Your task to perform on an android device: How do I get to the nearest Starbucks? Image 0: 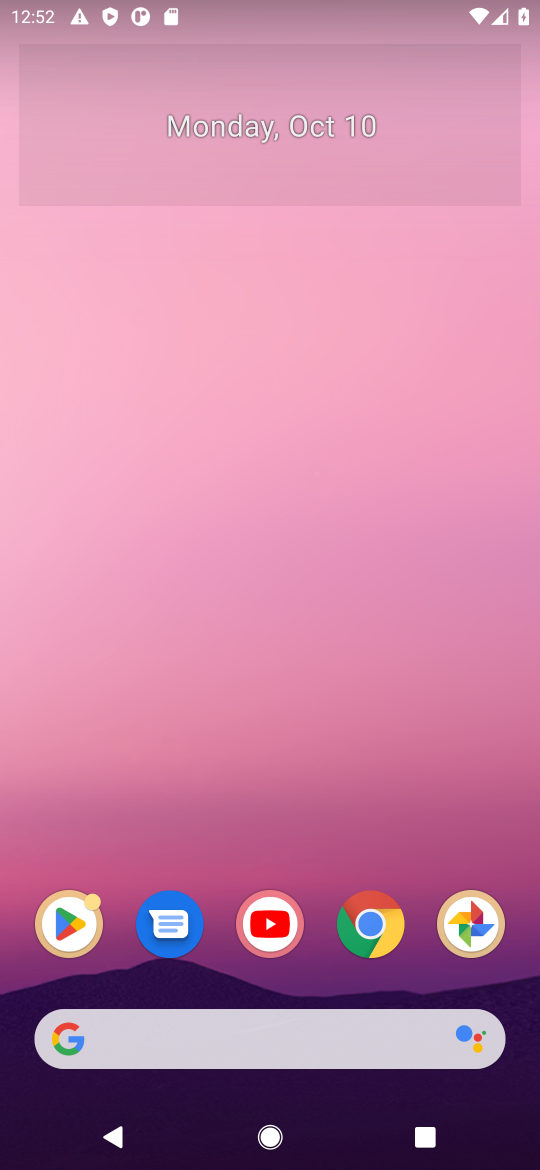
Step 0: drag from (279, 515) to (314, 179)
Your task to perform on an android device: How do I get to the nearest Starbucks? Image 1: 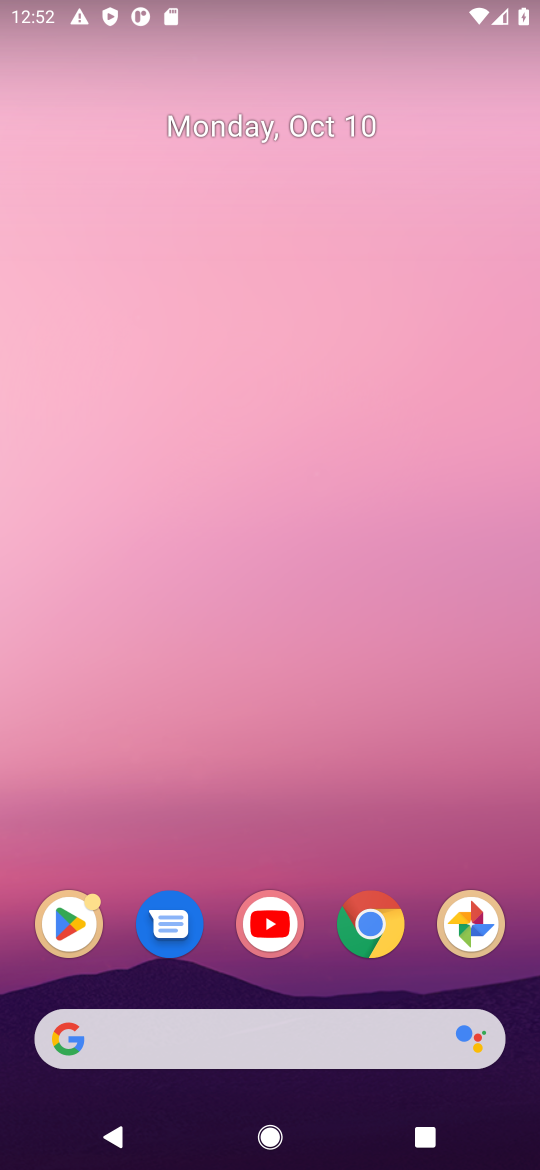
Step 1: drag from (210, 1021) to (133, 9)
Your task to perform on an android device: How do I get to the nearest Starbucks? Image 2: 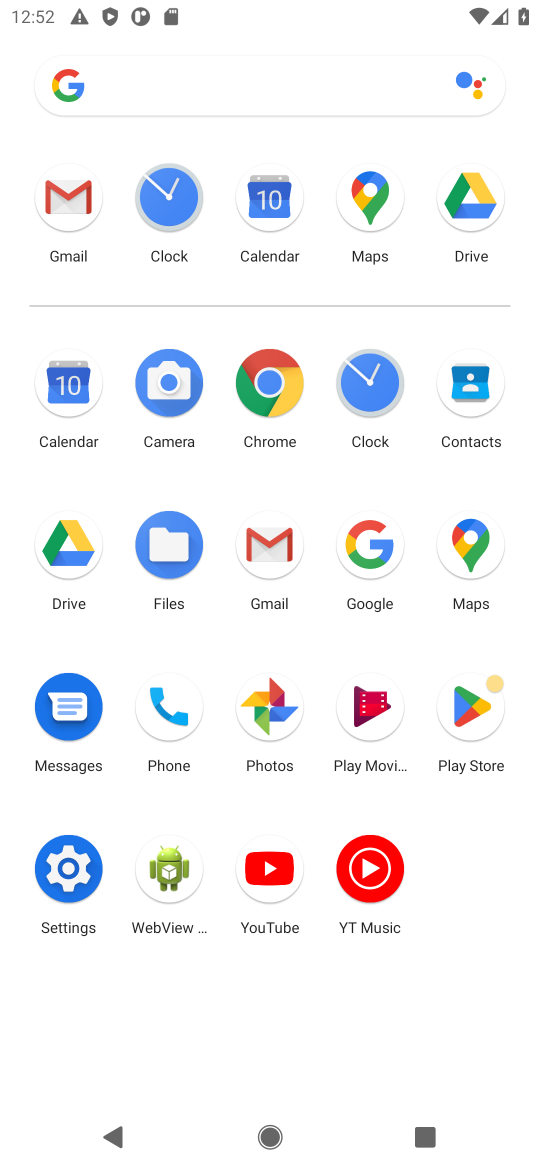
Step 2: click (255, 362)
Your task to perform on an android device: How do I get to the nearest Starbucks? Image 3: 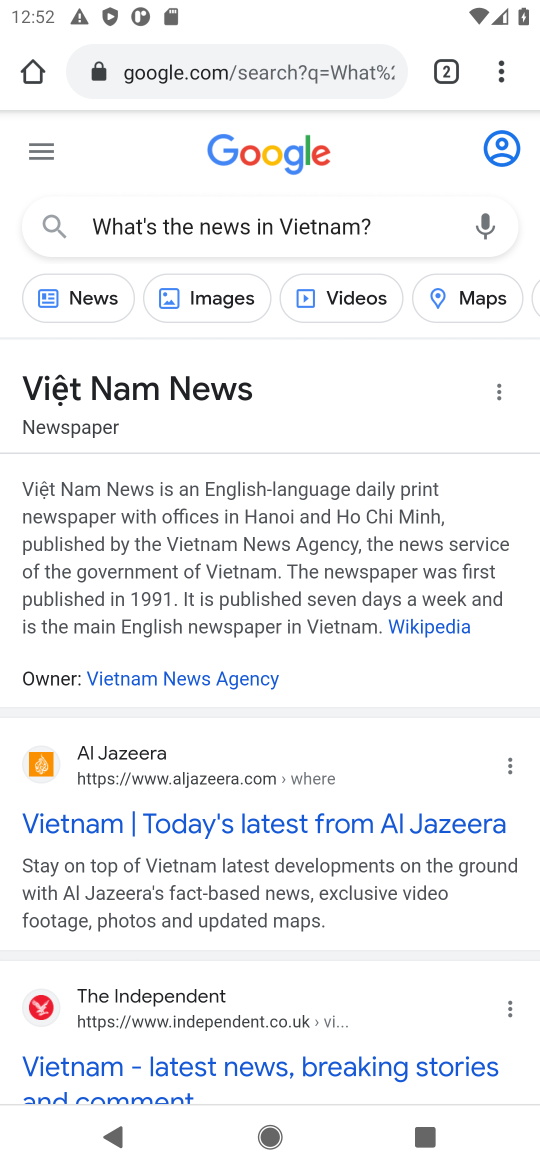
Step 3: click (298, 78)
Your task to perform on an android device: How do I get to the nearest Starbucks? Image 4: 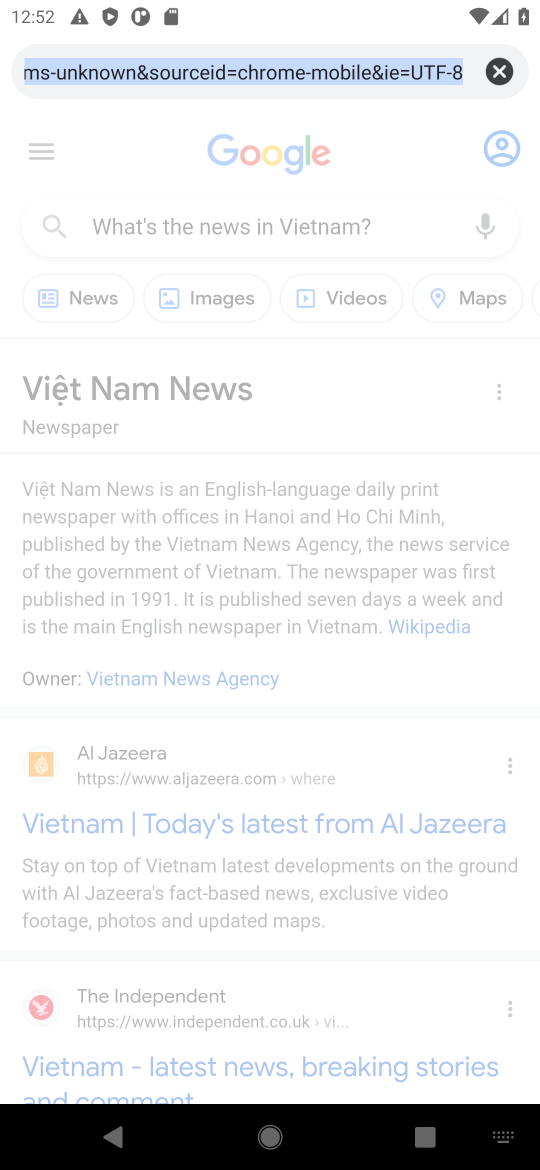
Step 4: click (503, 61)
Your task to perform on an android device: How do I get to the nearest Starbucks? Image 5: 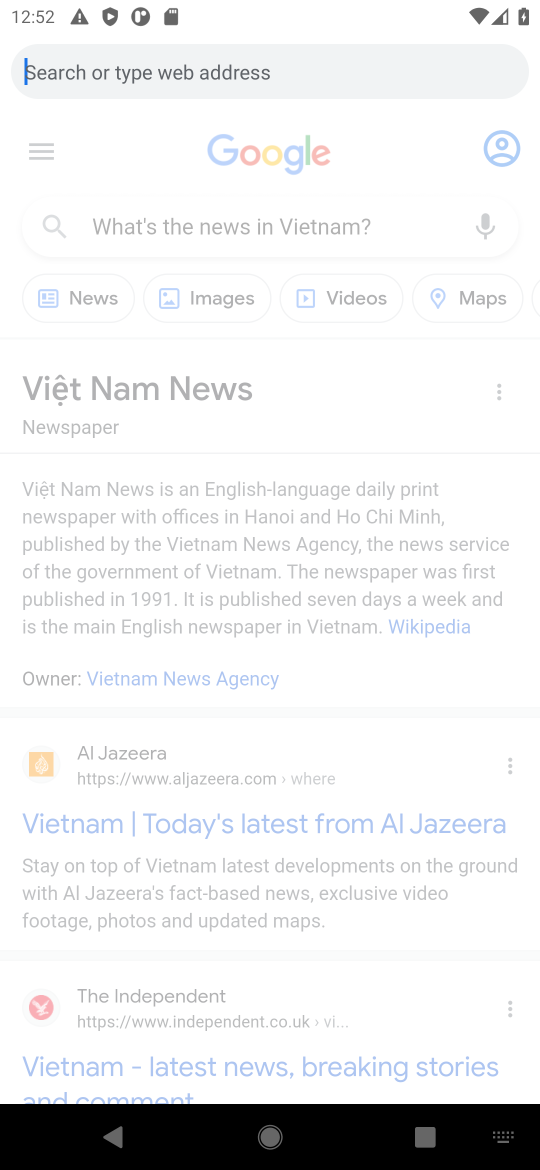
Step 5: type "How do I get to the nearest Starbucks?"
Your task to perform on an android device: How do I get to the nearest Starbucks? Image 6: 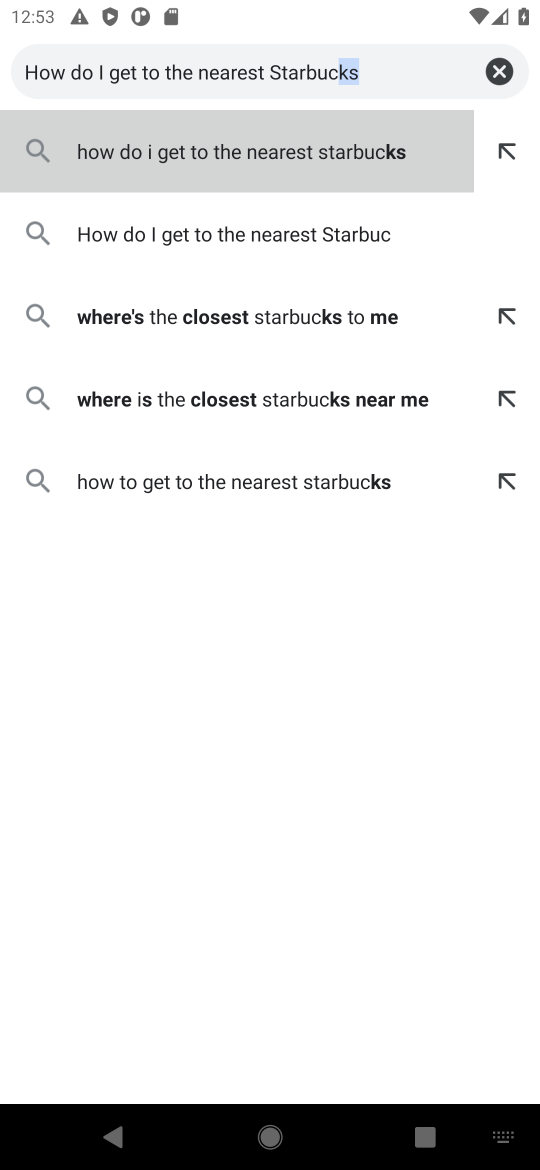
Step 6: press enter
Your task to perform on an android device: How do I get to the nearest Starbucks? Image 7: 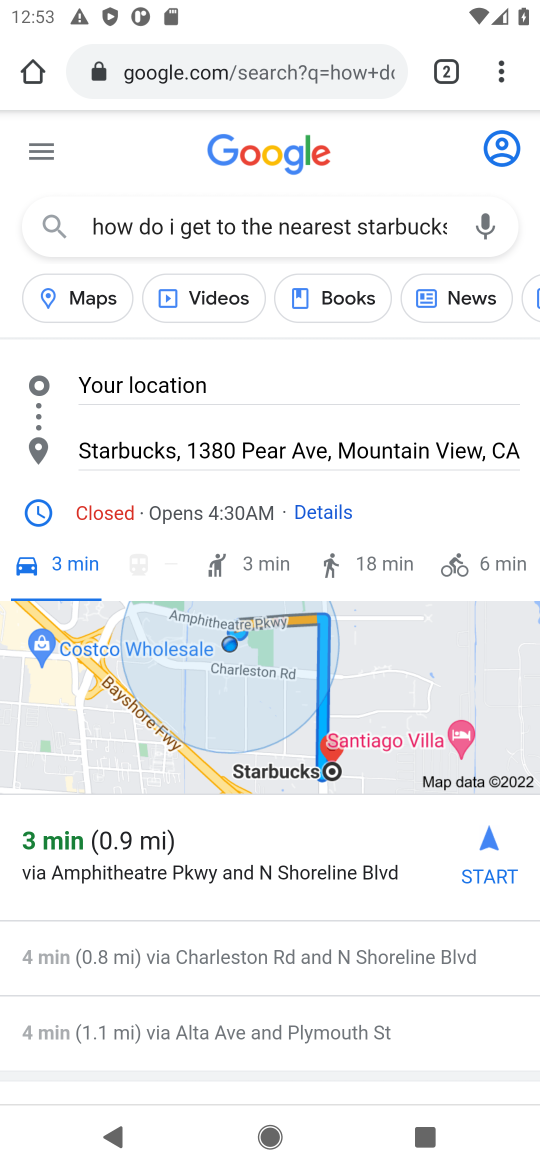
Step 7: task complete